Your task to perform on an android device: delete browsing data in the chrome app Image 0: 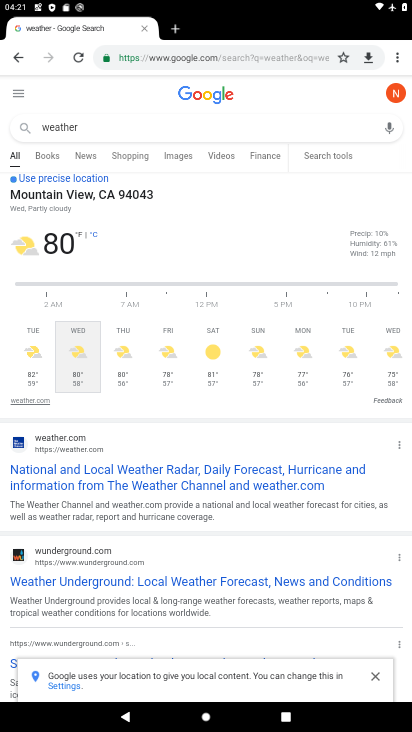
Step 0: drag from (403, 55) to (286, 182)
Your task to perform on an android device: delete browsing data in the chrome app Image 1: 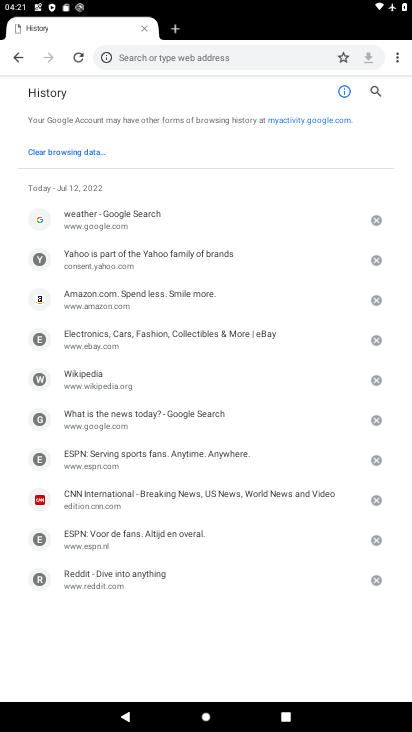
Step 1: click (48, 155)
Your task to perform on an android device: delete browsing data in the chrome app Image 2: 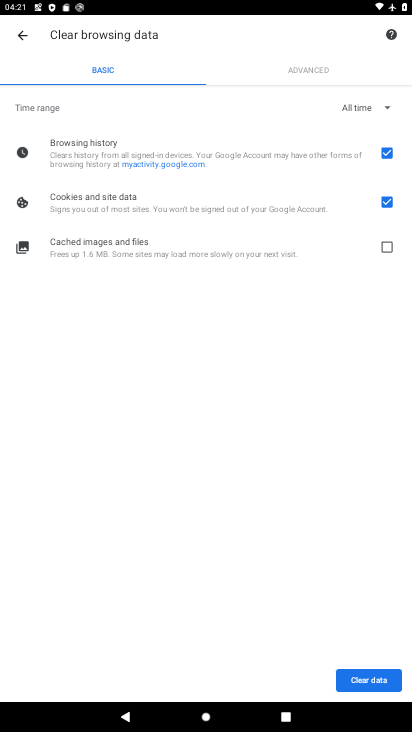
Step 2: click (389, 251)
Your task to perform on an android device: delete browsing data in the chrome app Image 3: 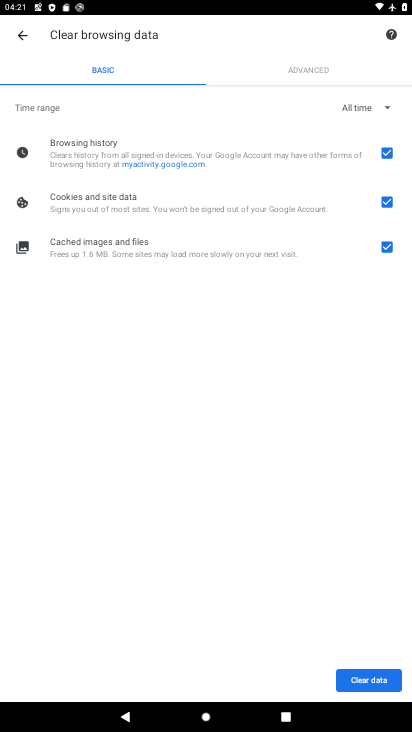
Step 3: click (375, 680)
Your task to perform on an android device: delete browsing data in the chrome app Image 4: 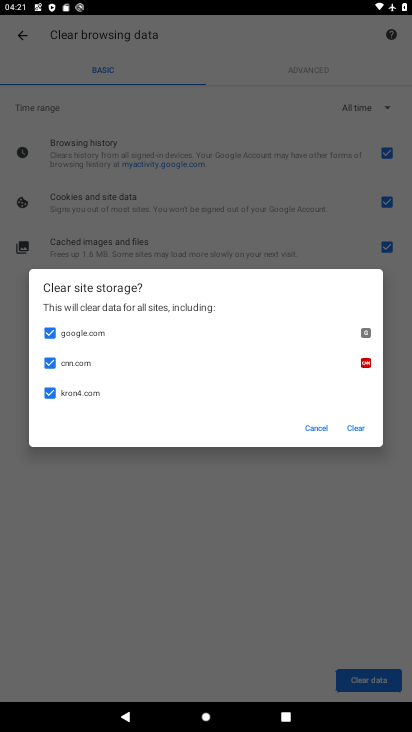
Step 4: click (352, 431)
Your task to perform on an android device: delete browsing data in the chrome app Image 5: 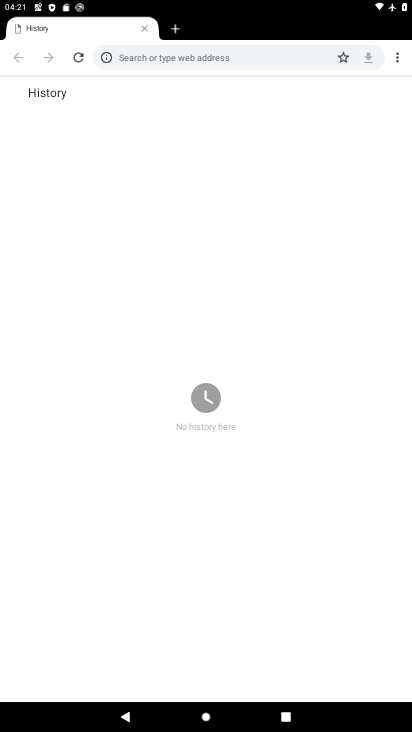
Step 5: task complete